Your task to perform on an android device: Go to Android settings Image 0: 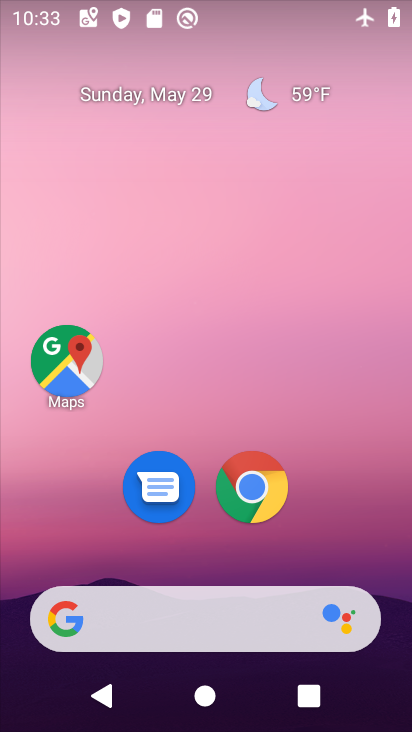
Step 0: drag from (354, 488) to (344, 107)
Your task to perform on an android device: Go to Android settings Image 1: 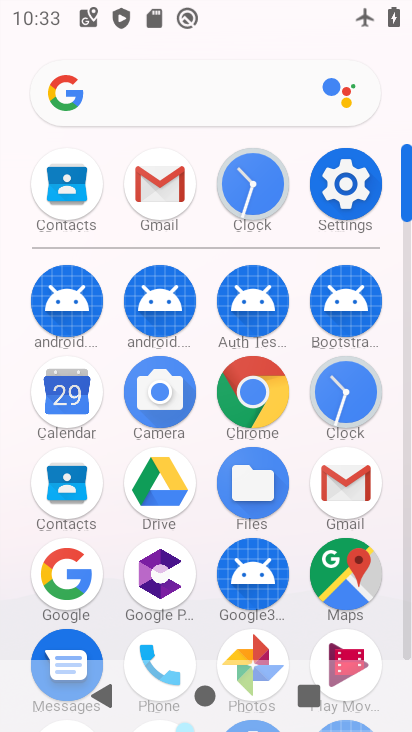
Step 1: click (347, 199)
Your task to perform on an android device: Go to Android settings Image 2: 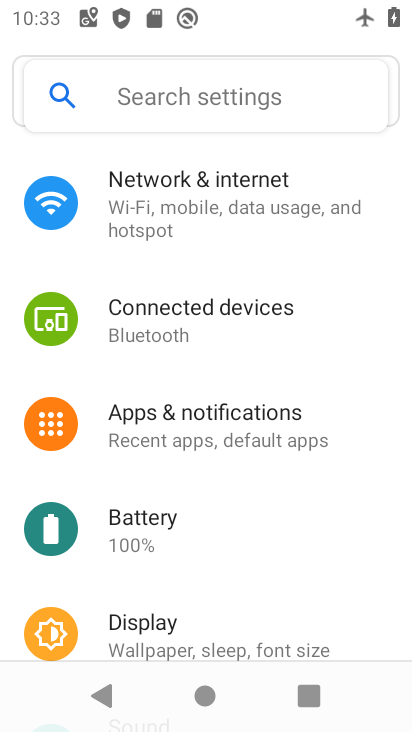
Step 2: task complete